Your task to perform on an android device: Open settings on Google Maps Image 0: 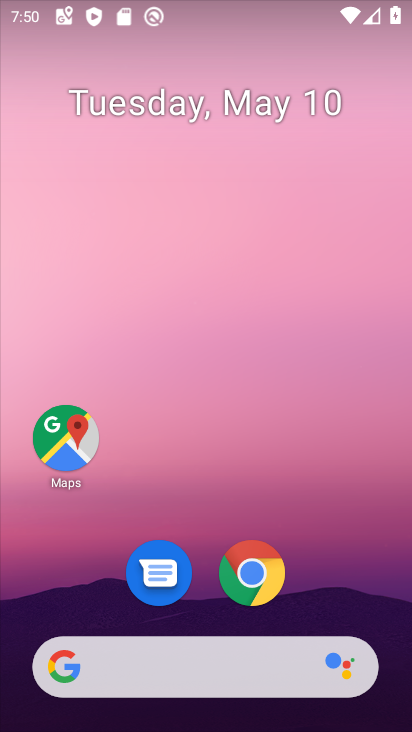
Step 0: press home button
Your task to perform on an android device: Open settings on Google Maps Image 1: 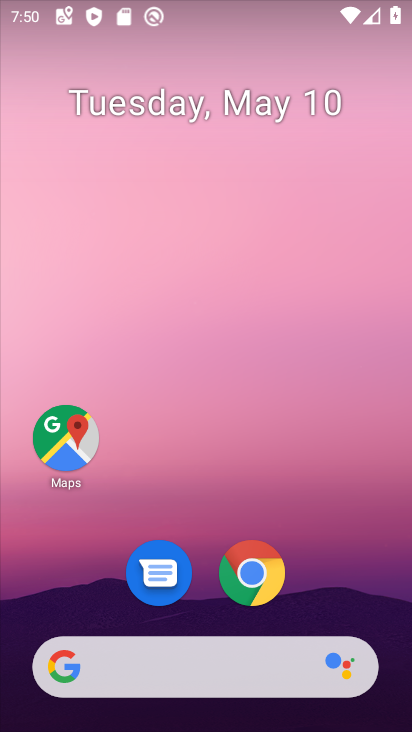
Step 1: drag from (383, 558) to (347, 153)
Your task to perform on an android device: Open settings on Google Maps Image 2: 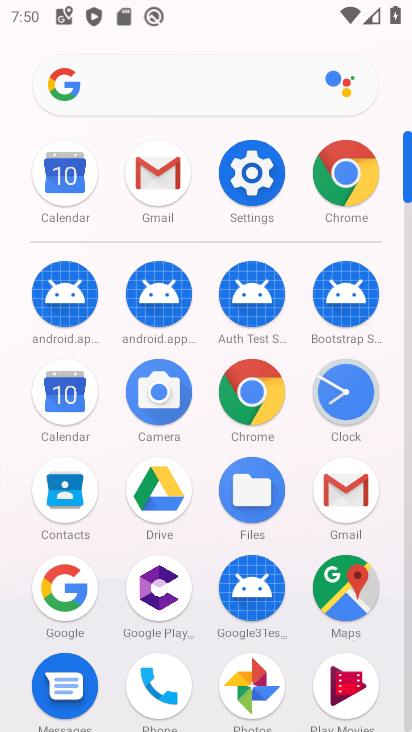
Step 2: click (70, 583)
Your task to perform on an android device: Open settings on Google Maps Image 3: 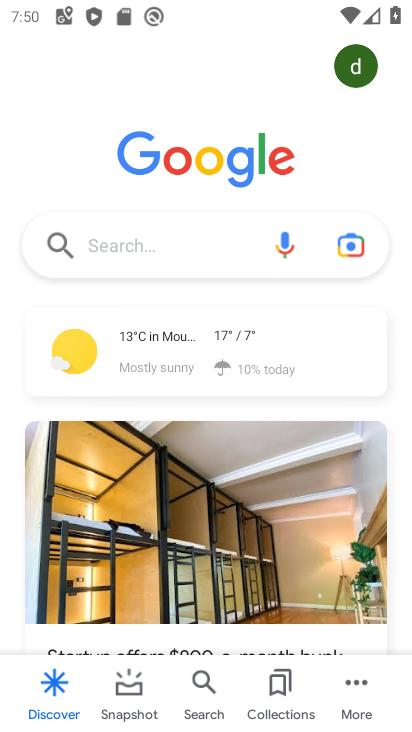
Step 3: task complete